Your task to perform on an android device: visit the assistant section in the google photos Image 0: 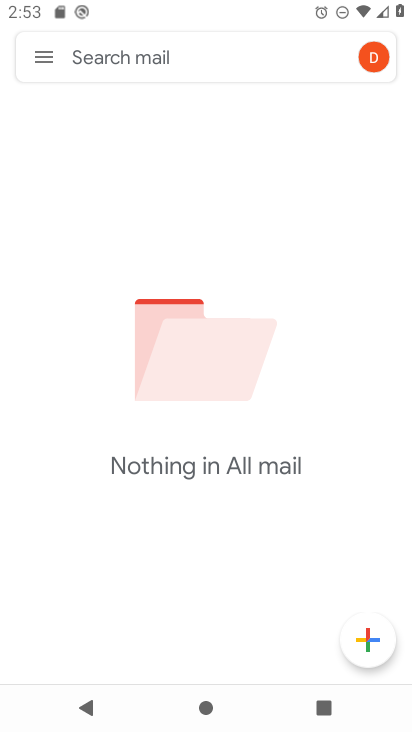
Step 0: press home button
Your task to perform on an android device: visit the assistant section in the google photos Image 1: 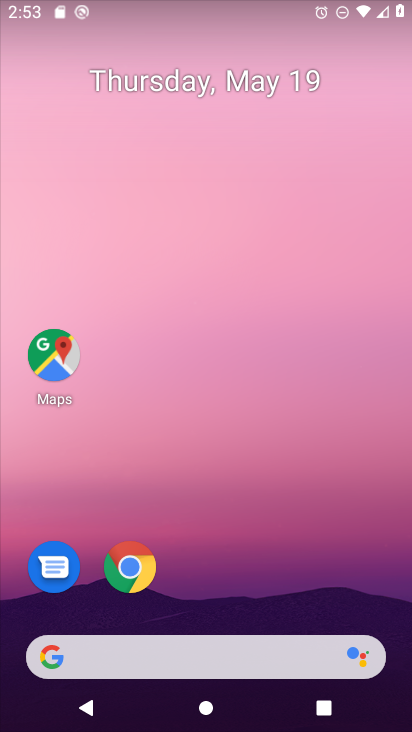
Step 1: drag from (290, 277) to (287, 104)
Your task to perform on an android device: visit the assistant section in the google photos Image 2: 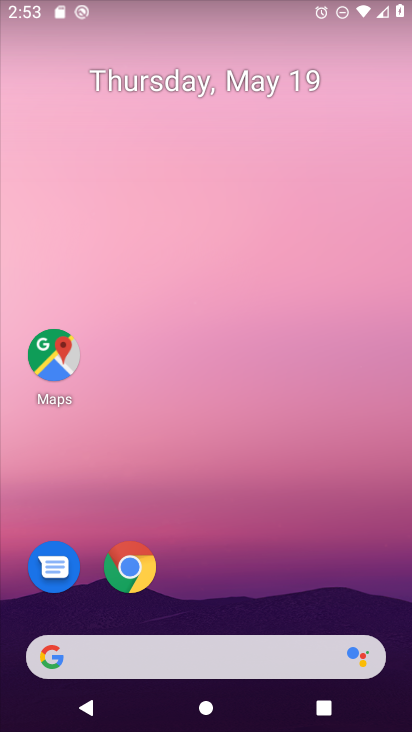
Step 2: drag from (252, 570) to (300, 90)
Your task to perform on an android device: visit the assistant section in the google photos Image 3: 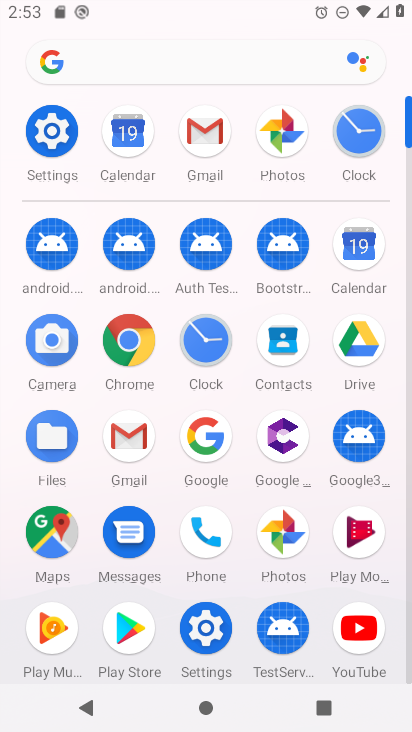
Step 3: click (281, 130)
Your task to perform on an android device: visit the assistant section in the google photos Image 4: 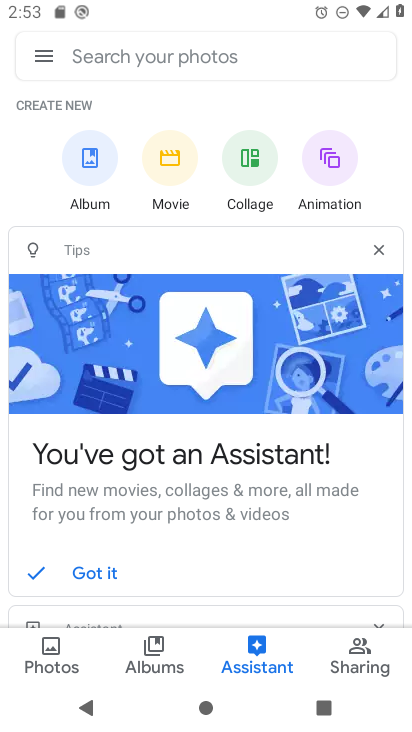
Step 4: click (263, 654)
Your task to perform on an android device: visit the assistant section in the google photos Image 5: 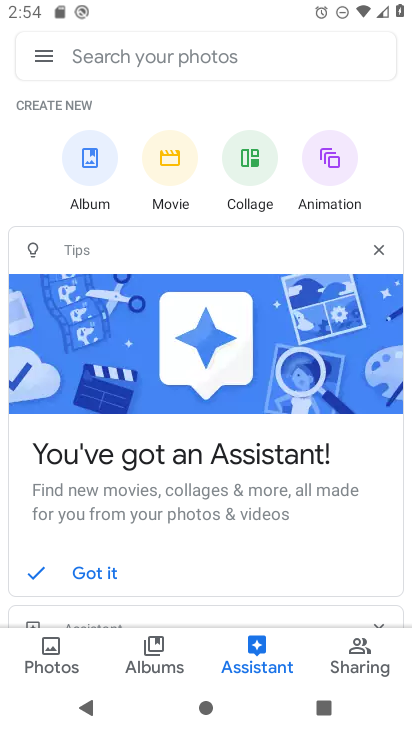
Step 5: task complete